Your task to perform on an android device: search for starred emails in the gmail app Image 0: 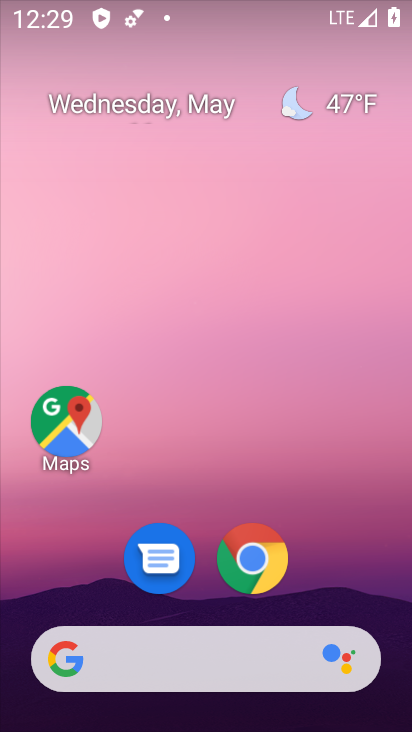
Step 0: drag from (213, 723) to (192, 107)
Your task to perform on an android device: search for starred emails in the gmail app Image 1: 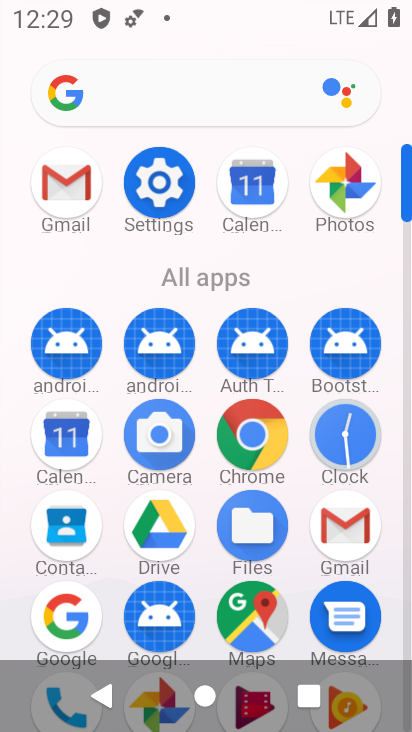
Step 1: click (66, 201)
Your task to perform on an android device: search for starred emails in the gmail app Image 2: 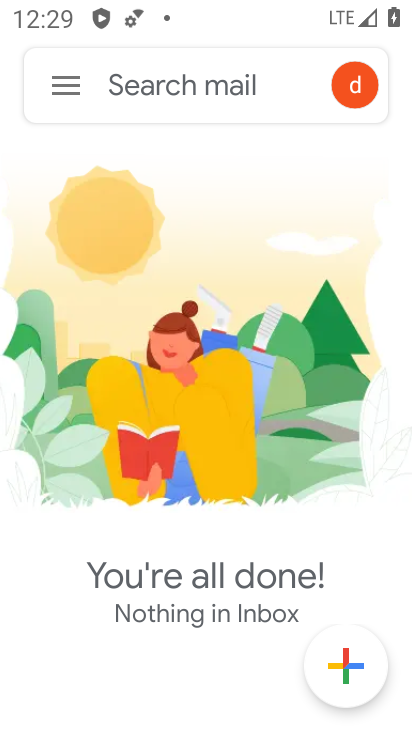
Step 2: click (68, 87)
Your task to perform on an android device: search for starred emails in the gmail app Image 3: 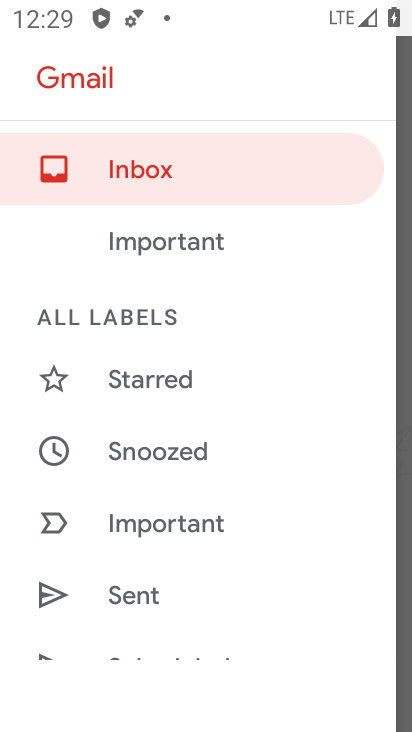
Step 3: click (155, 380)
Your task to perform on an android device: search for starred emails in the gmail app Image 4: 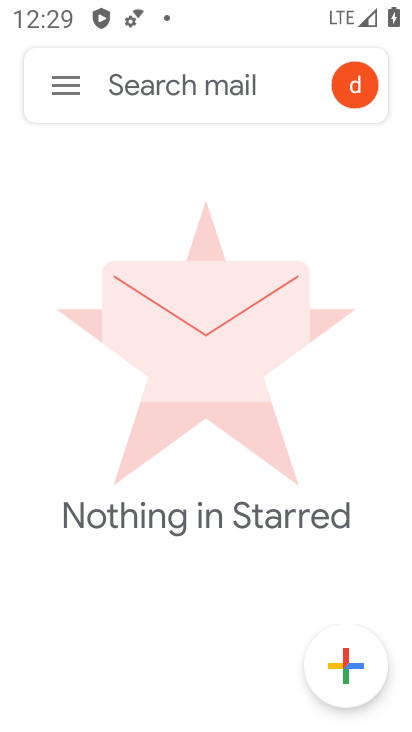
Step 4: task complete